Your task to perform on an android device: open the mobile data screen to see how much data has been used Image 0: 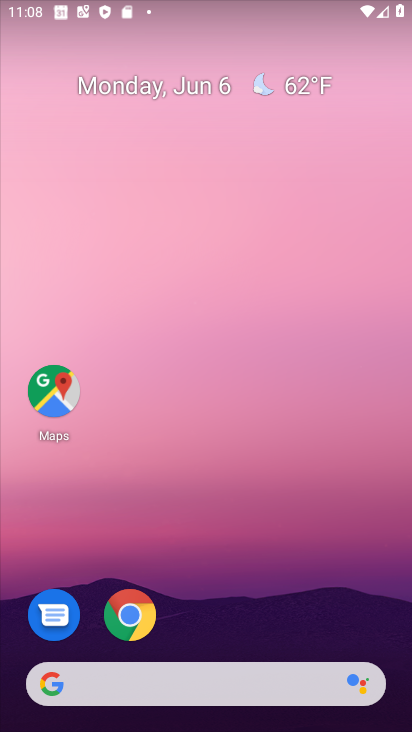
Step 0: drag from (213, 678) to (294, 208)
Your task to perform on an android device: open the mobile data screen to see how much data has been used Image 1: 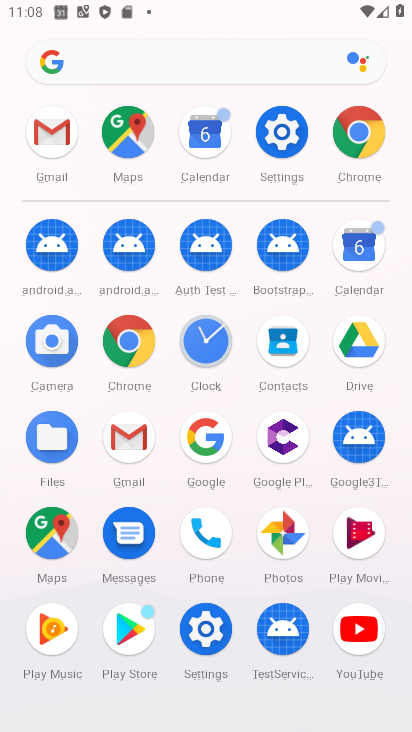
Step 1: click (292, 151)
Your task to perform on an android device: open the mobile data screen to see how much data has been used Image 2: 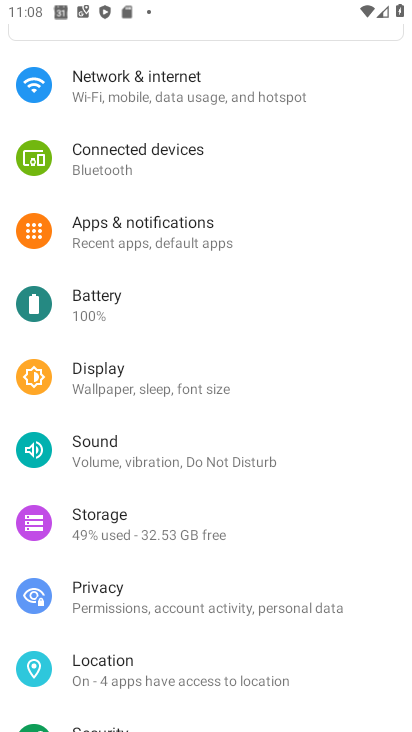
Step 2: drag from (242, 118) to (256, 559)
Your task to perform on an android device: open the mobile data screen to see how much data has been used Image 3: 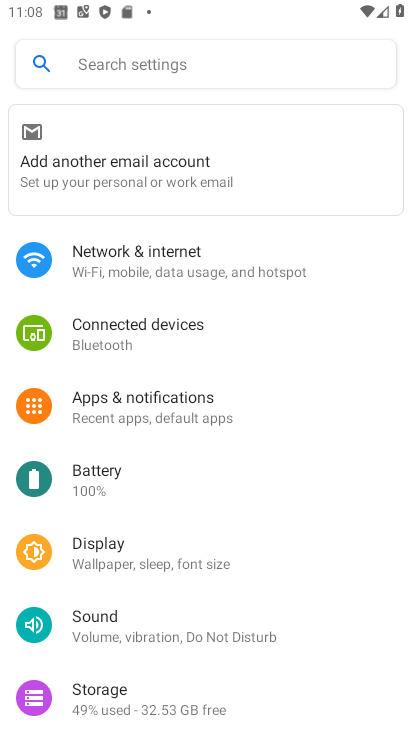
Step 3: click (156, 240)
Your task to perform on an android device: open the mobile data screen to see how much data has been used Image 4: 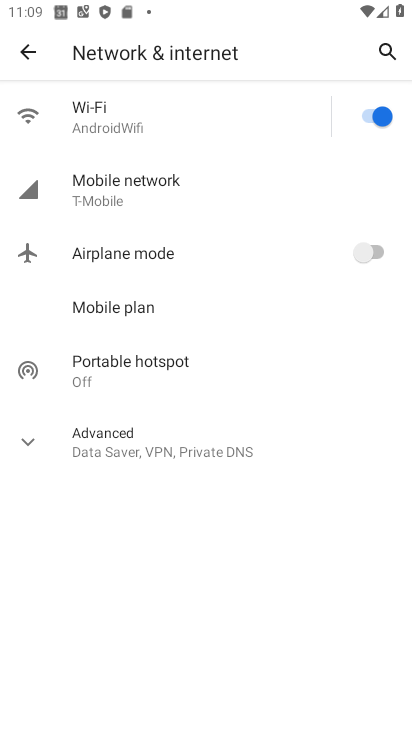
Step 4: click (175, 182)
Your task to perform on an android device: open the mobile data screen to see how much data has been used Image 5: 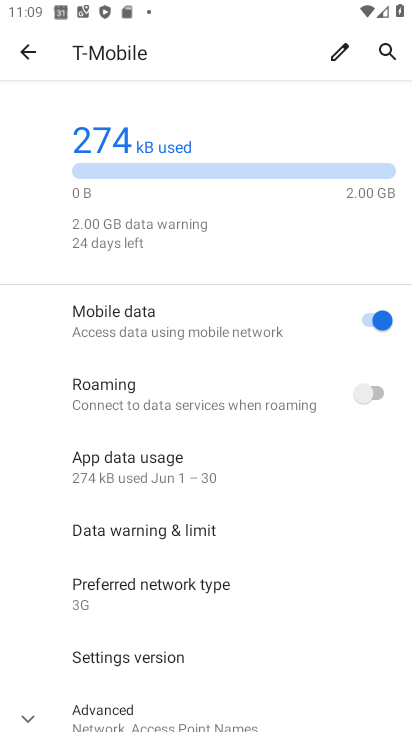
Step 5: task complete